Your task to perform on an android device: turn on the 24-hour format for clock Image 0: 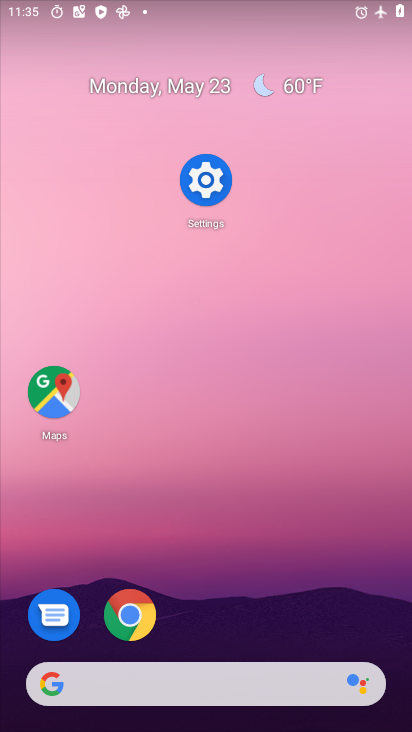
Step 0: drag from (209, 179) to (90, 169)
Your task to perform on an android device: turn on the 24-hour format for clock Image 1: 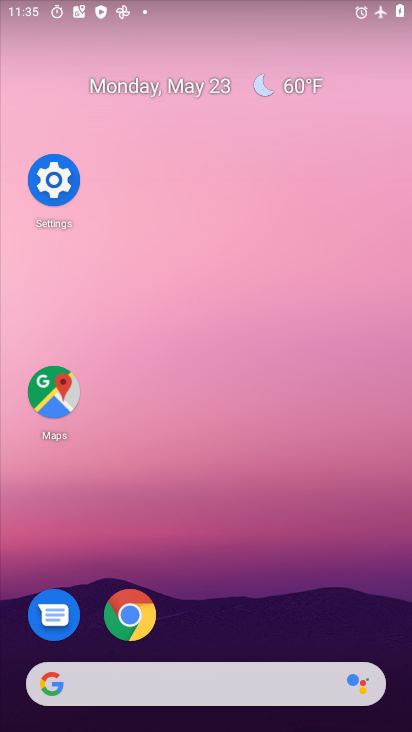
Step 1: drag from (228, 552) to (249, 110)
Your task to perform on an android device: turn on the 24-hour format for clock Image 2: 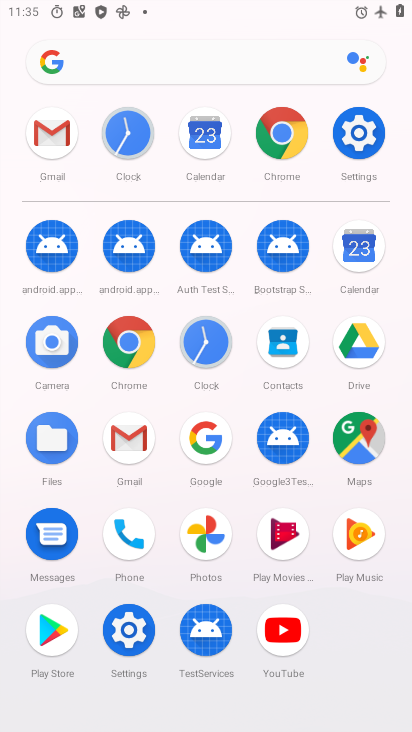
Step 2: click (219, 331)
Your task to perform on an android device: turn on the 24-hour format for clock Image 3: 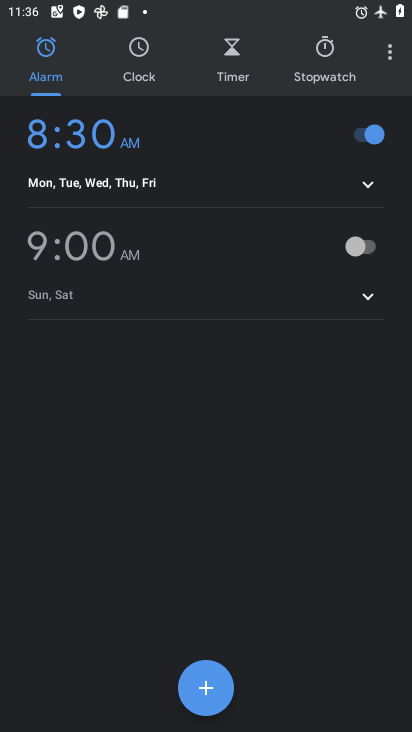
Step 3: click (384, 46)
Your task to perform on an android device: turn on the 24-hour format for clock Image 4: 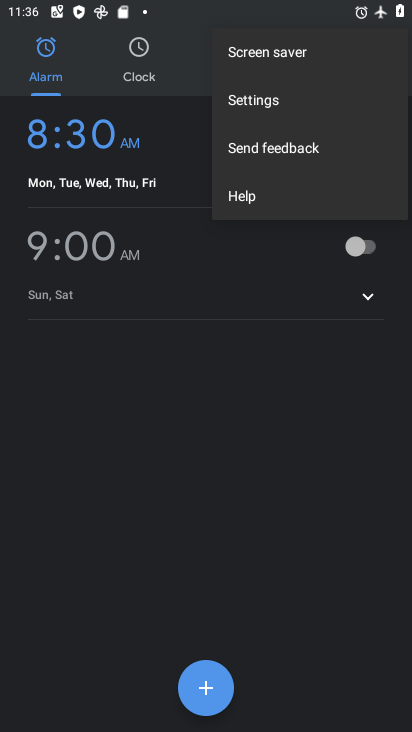
Step 4: click (247, 107)
Your task to perform on an android device: turn on the 24-hour format for clock Image 5: 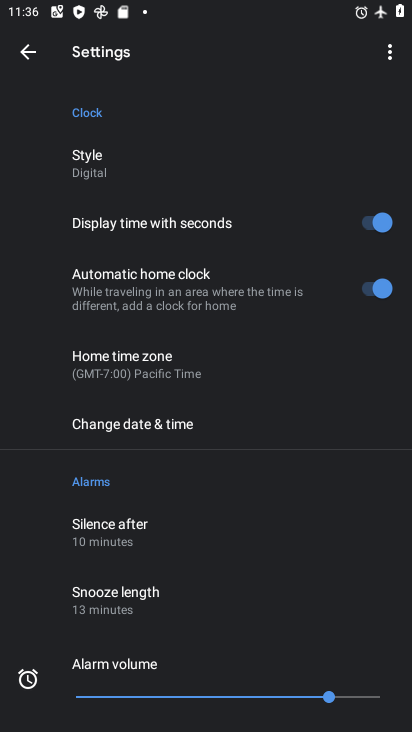
Step 5: click (163, 425)
Your task to perform on an android device: turn on the 24-hour format for clock Image 6: 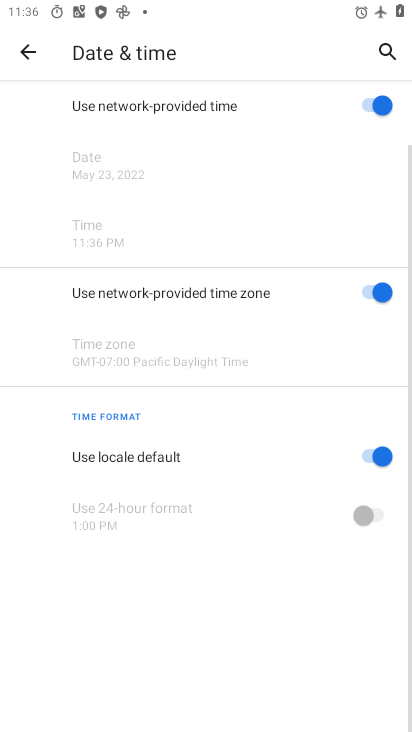
Step 6: click (385, 450)
Your task to perform on an android device: turn on the 24-hour format for clock Image 7: 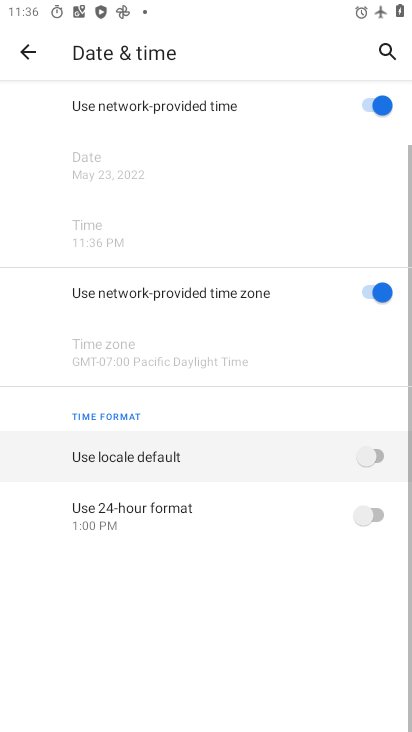
Step 7: click (373, 512)
Your task to perform on an android device: turn on the 24-hour format for clock Image 8: 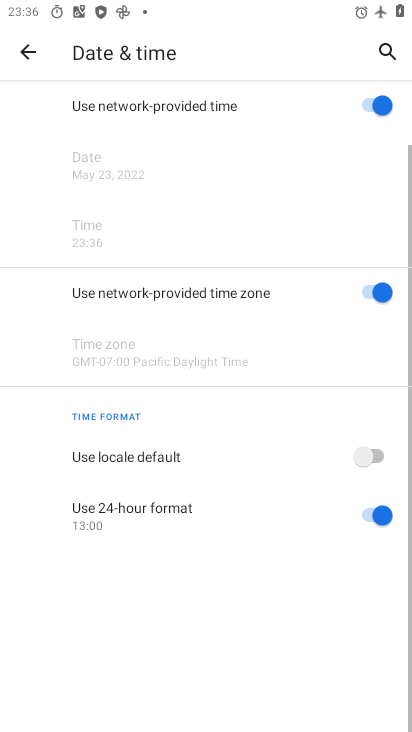
Step 8: task complete